Your task to perform on an android device: Open sound settings Image 0: 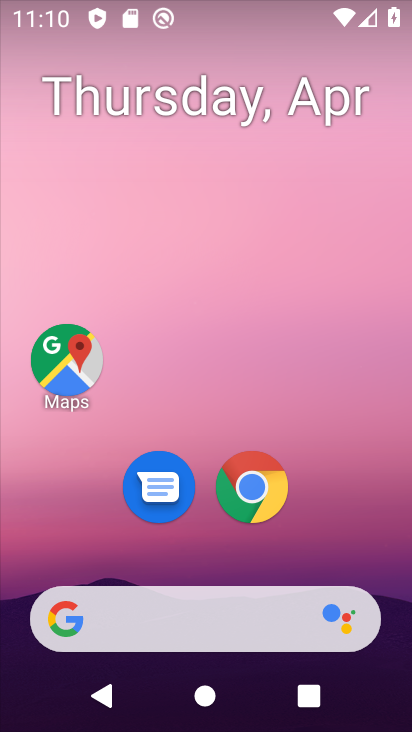
Step 0: drag from (316, 538) to (295, 189)
Your task to perform on an android device: Open sound settings Image 1: 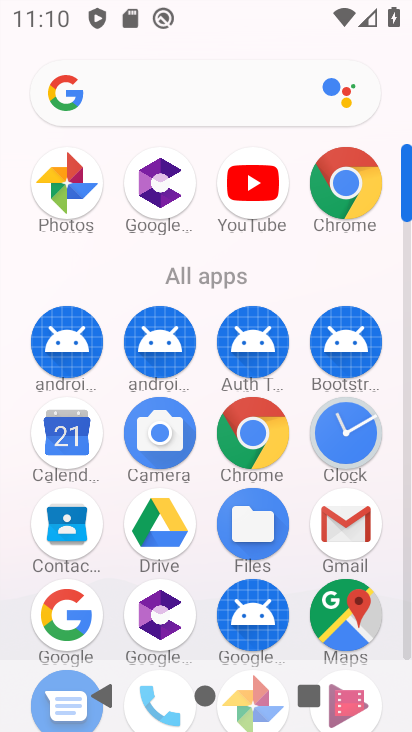
Step 1: drag from (297, 605) to (313, 158)
Your task to perform on an android device: Open sound settings Image 2: 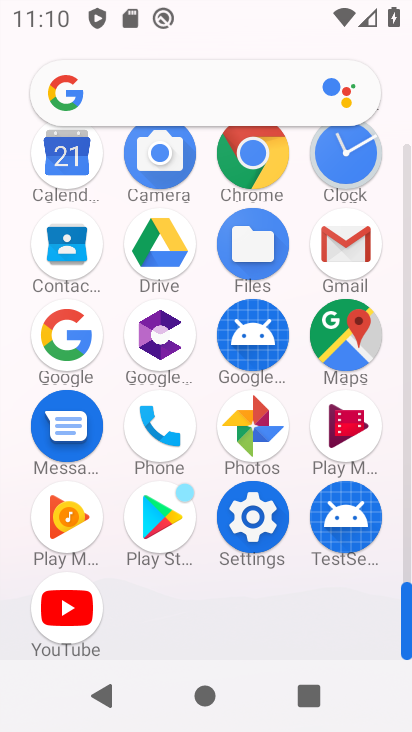
Step 2: click (251, 526)
Your task to perform on an android device: Open sound settings Image 3: 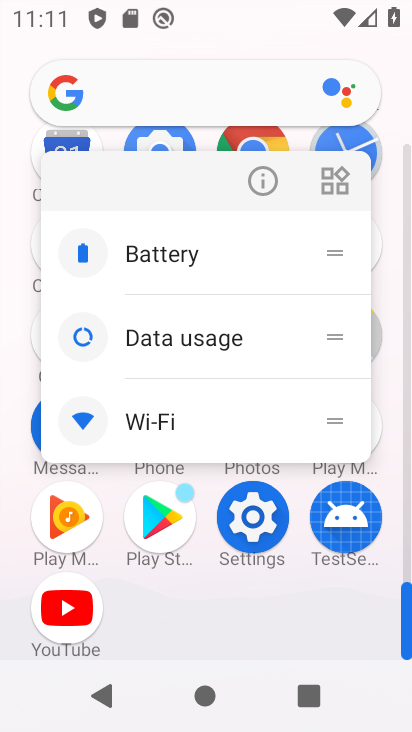
Step 3: click (234, 530)
Your task to perform on an android device: Open sound settings Image 4: 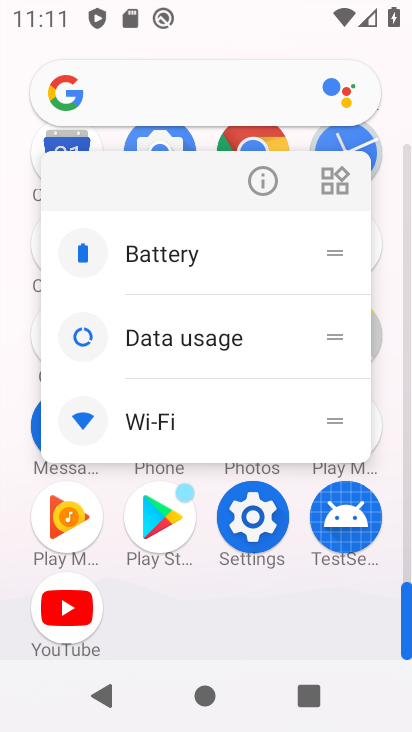
Step 4: click (245, 519)
Your task to perform on an android device: Open sound settings Image 5: 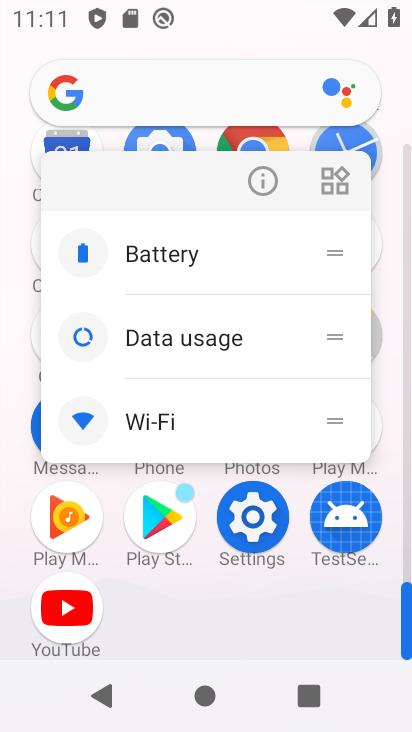
Step 5: click (256, 509)
Your task to perform on an android device: Open sound settings Image 6: 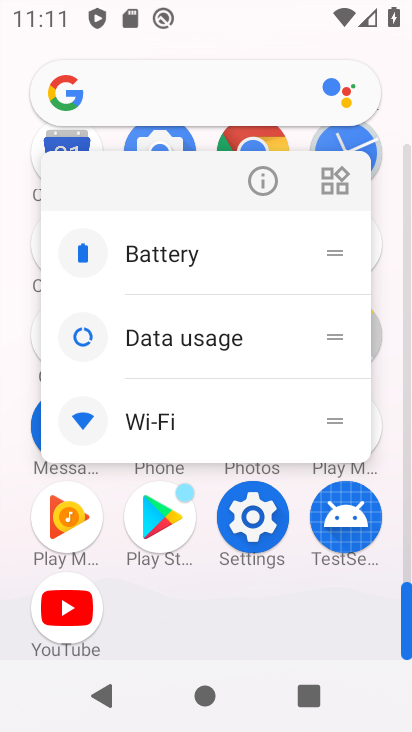
Step 6: click (256, 509)
Your task to perform on an android device: Open sound settings Image 7: 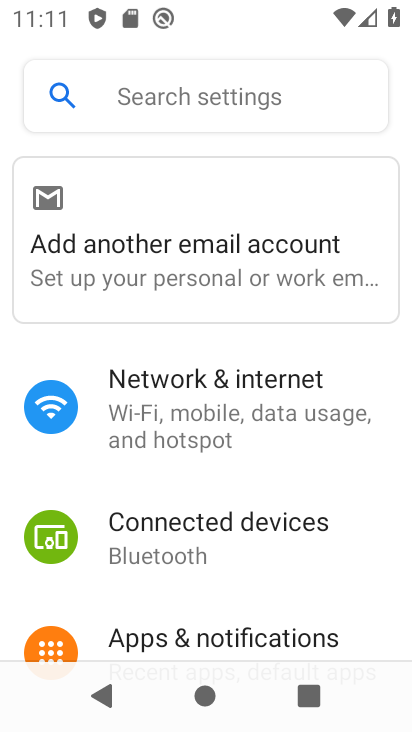
Step 7: drag from (232, 554) to (308, 74)
Your task to perform on an android device: Open sound settings Image 8: 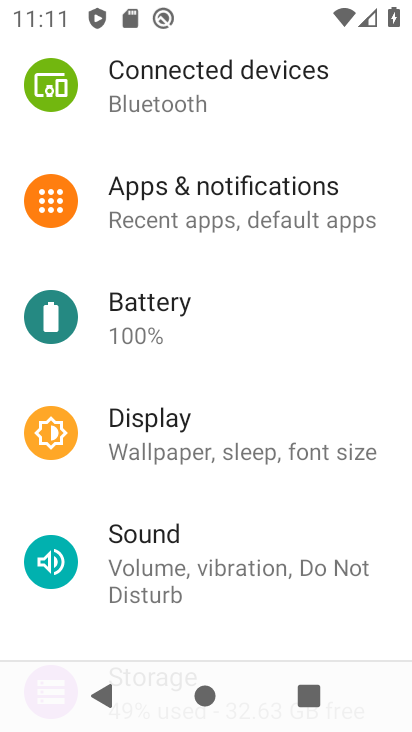
Step 8: click (193, 547)
Your task to perform on an android device: Open sound settings Image 9: 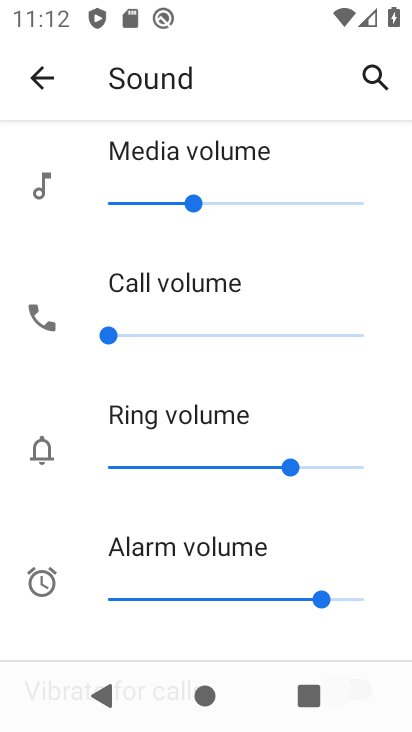
Step 9: task complete